Your task to perform on an android device: delete browsing data in the chrome app Image 0: 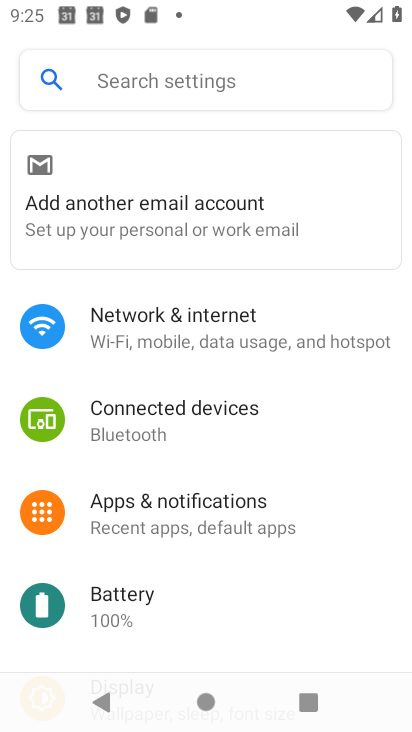
Step 0: press home button
Your task to perform on an android device: delete browsing data in the chrome app Image 1: 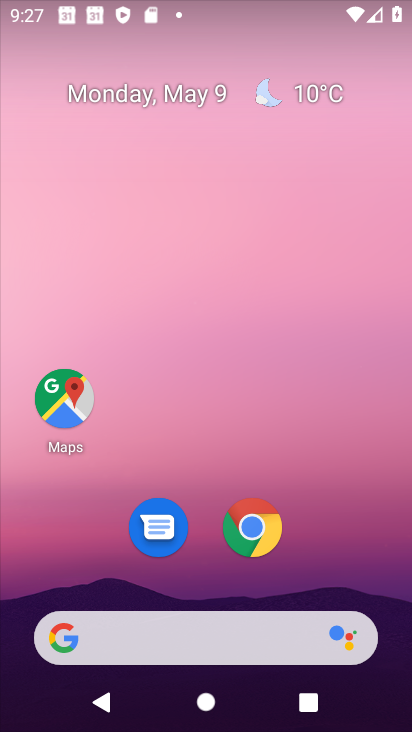
Step 1: drag from (168, 595) to (180, 113)
Your task to perform on an android device: delete browsing data in the chrome app Image 2: 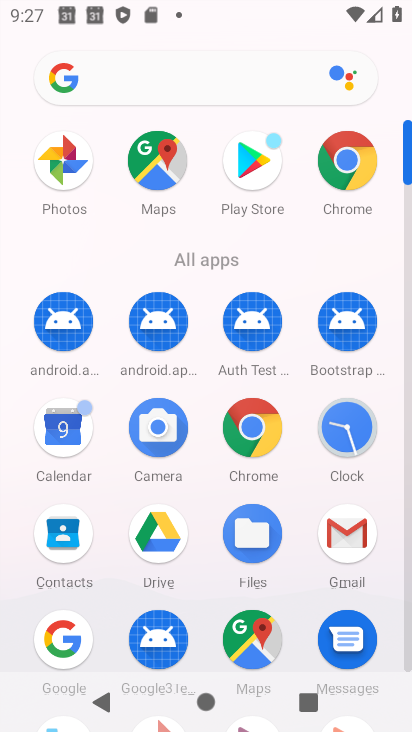
Step 2: click (250, 429)
Your task to perform on an android device: delete browsing data in the chrome app Image 3: 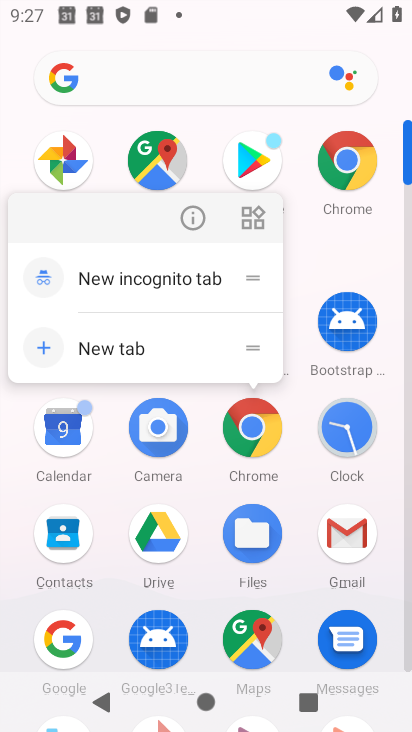
Step 3: click (250, 429)
Your task to perform on an android device: delete browsing data in the chrome app Image 4: 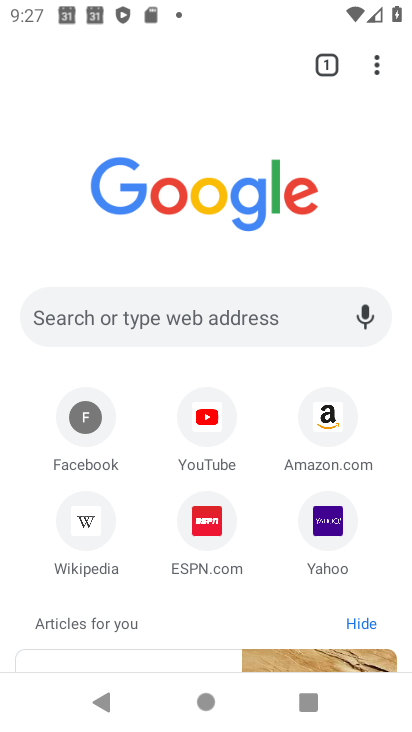
Step 4: task complete